Your task to perform on an android device: Go to notification settings Image 0: 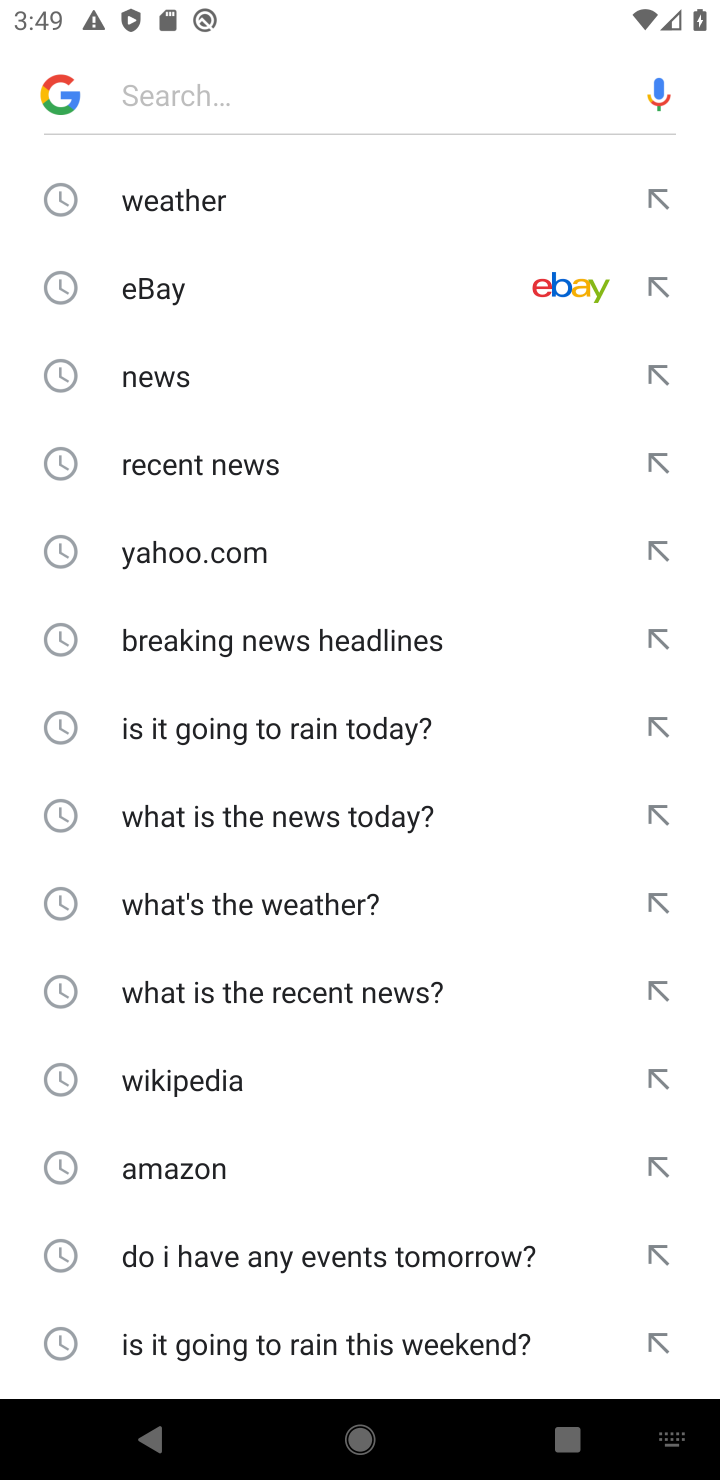
Step 0: press home button
Your task to perform on an android device: Go to notification settings Image 1: 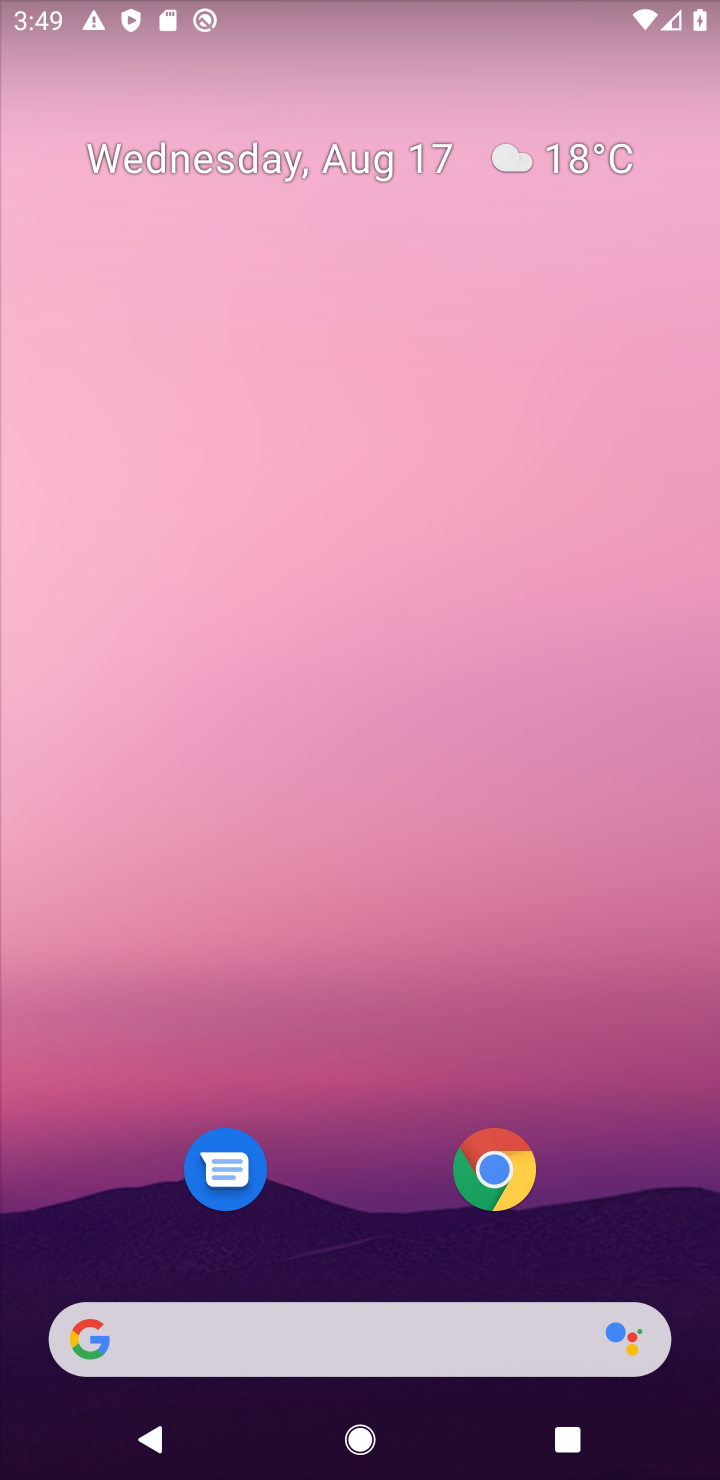
Step 1: drag from (386, 1007) to (463, 276)
Your task to perform on an android device: Go to notification settings Image 2: 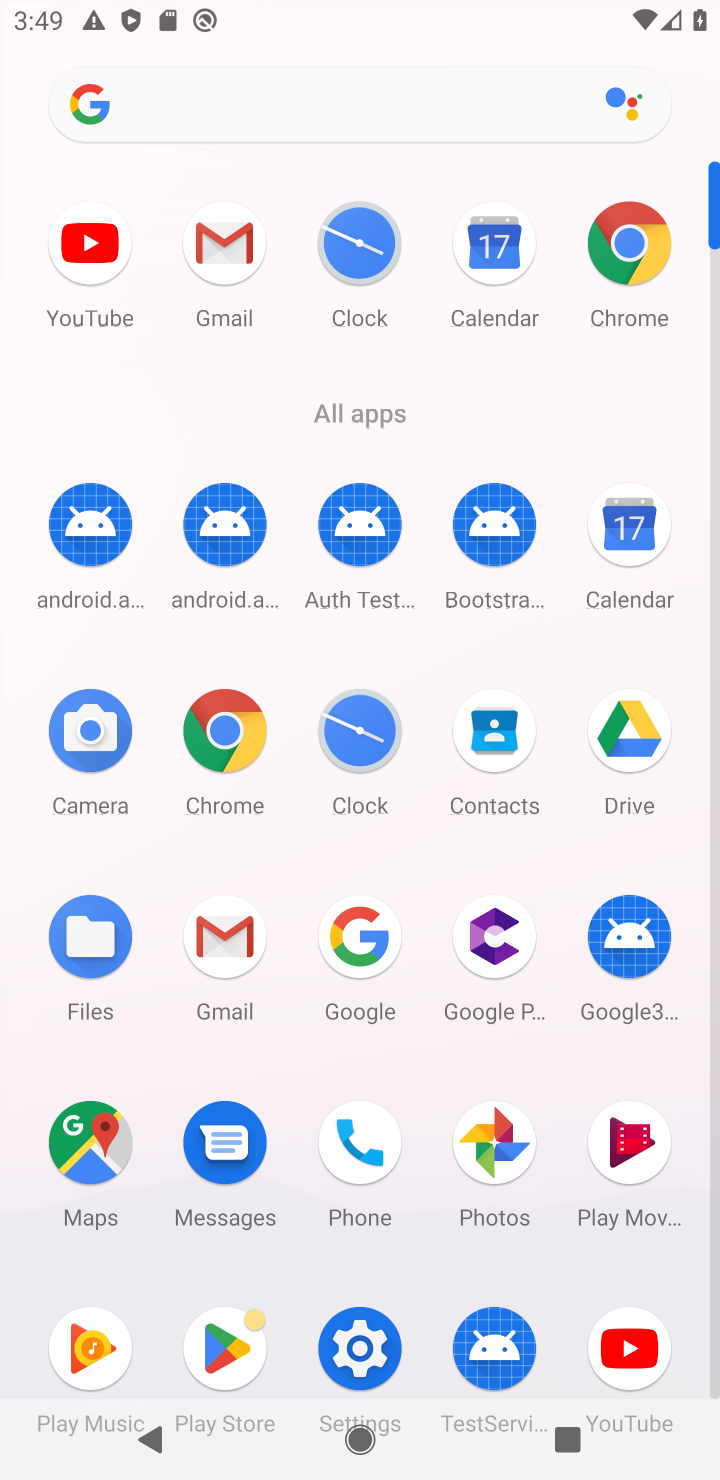
Step 2: click (360, 1336)
Your task to perform on an android device: Go to notification settings Image 3: 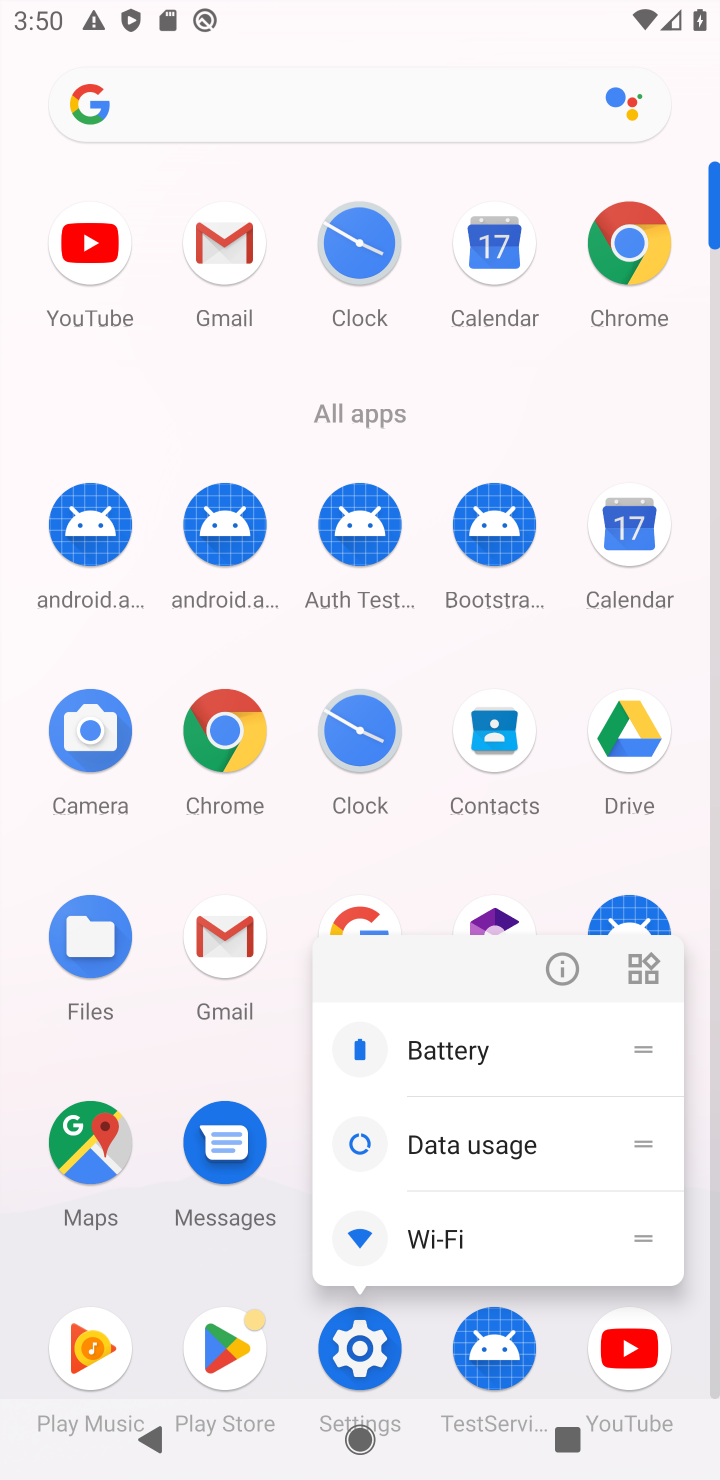
Step 3: click (332, 1346)
Your task to perform on an android device: Go to notification settings Image 4: 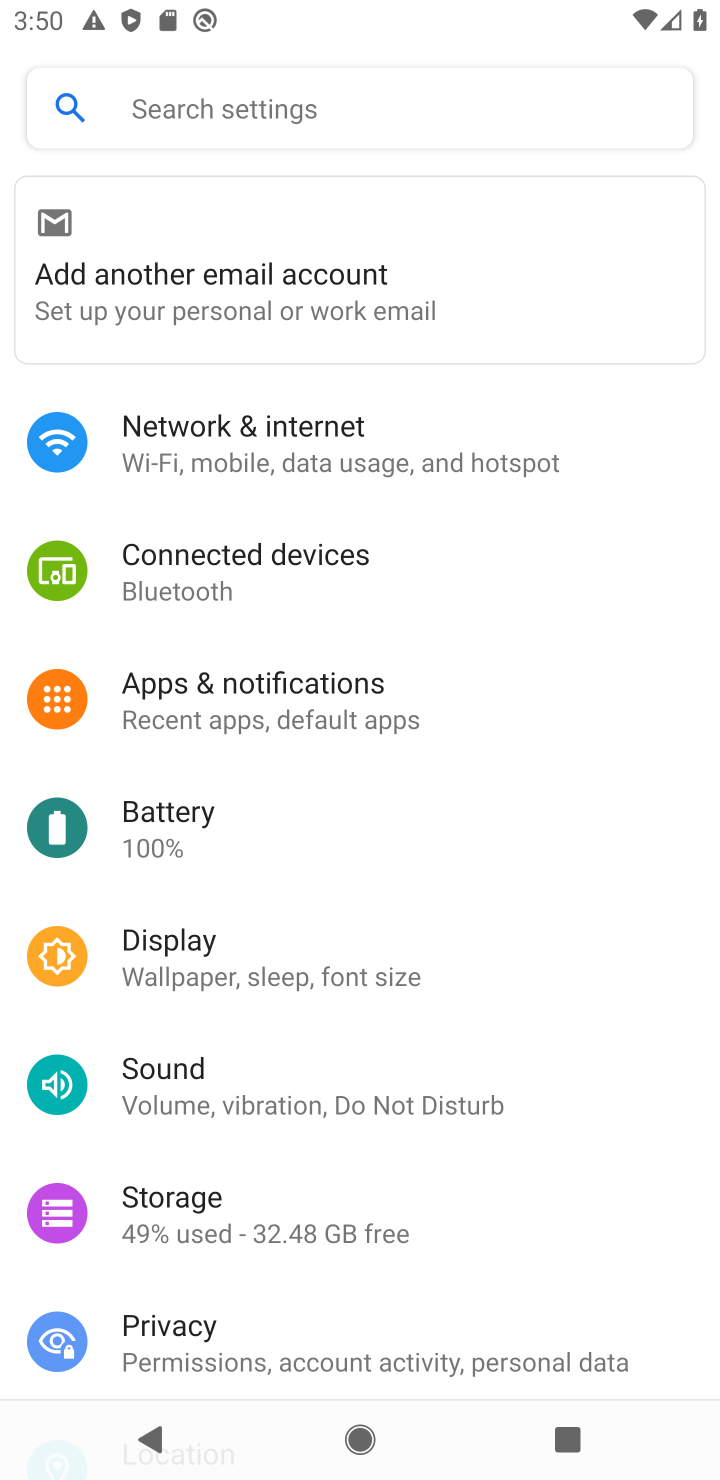
Step 4: click (266, 686)
Your task to perform on an android device: Go to notification settings Image 5: 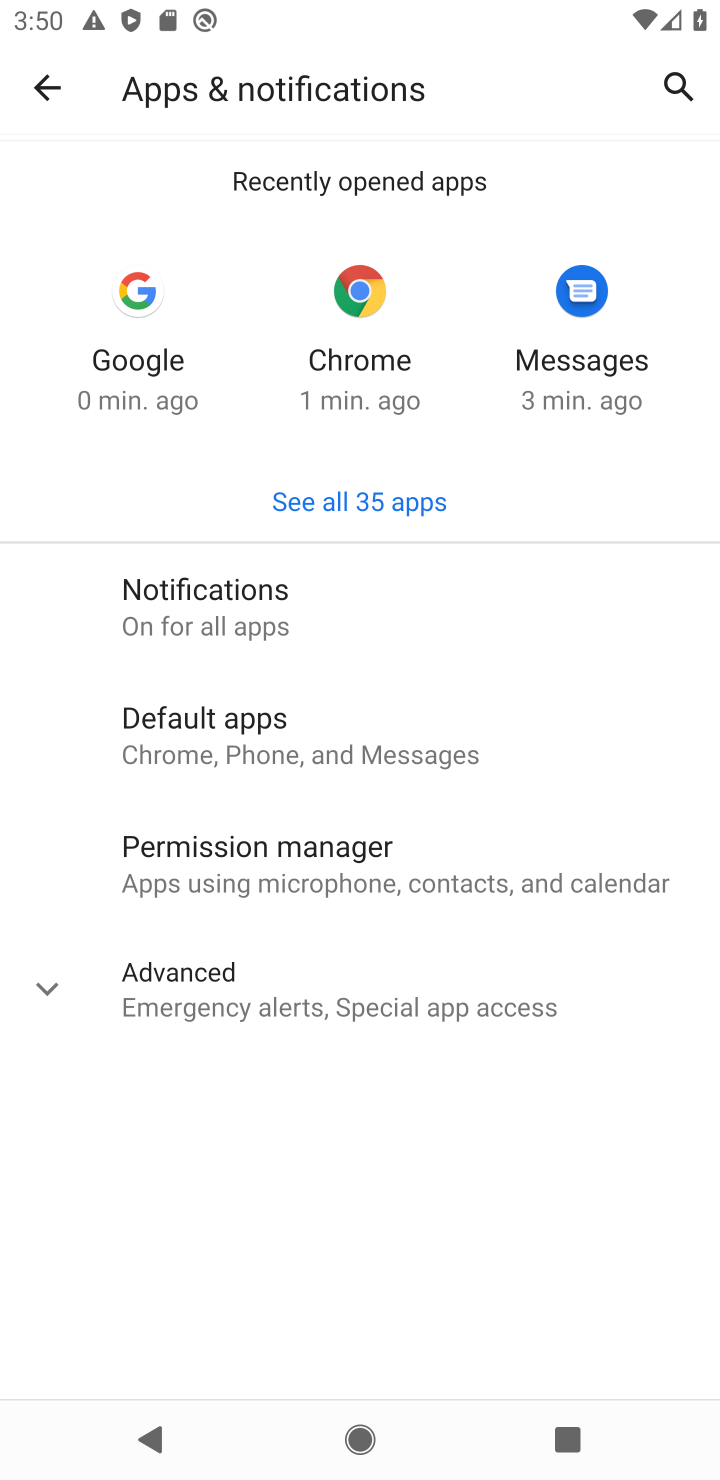
Step 5: click (210, 588)
Your task to perform on an android device: Go to notification settings Image 6: 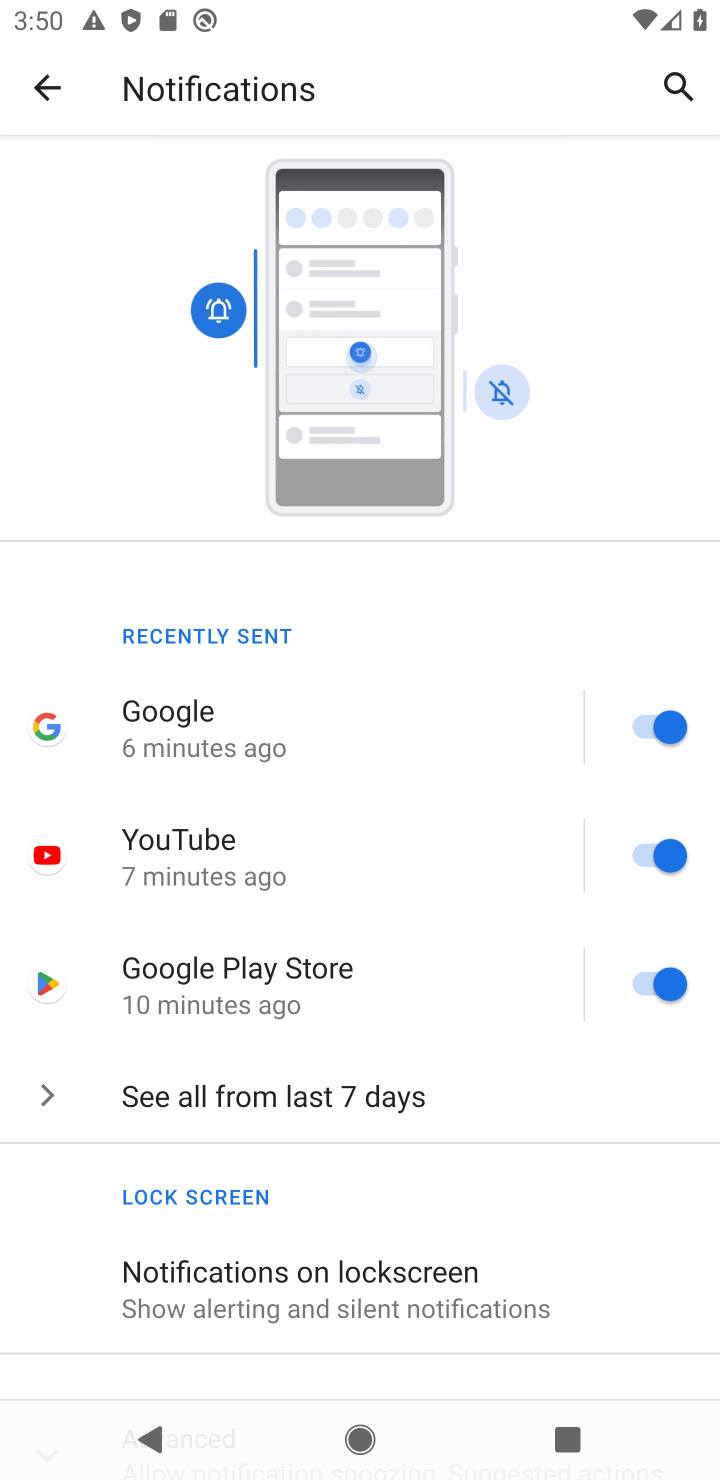
Step 6: task complete